Your task to perform on an android device: Show me the alarms in the clock app Image 0: 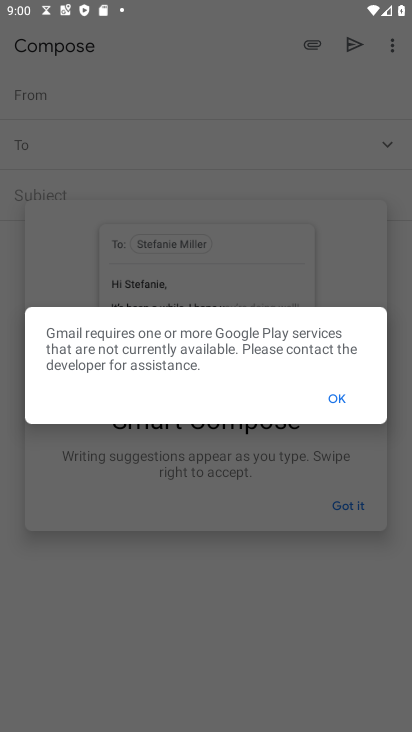
Step 0: press home button
Your task to perform on an android device: Show me the alarms in the clock app Image 1: 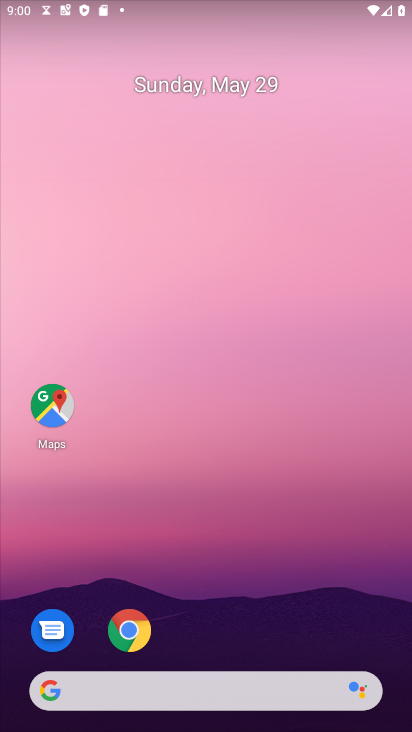
Step 1: drag from (232, 633) to (281, 123)
Your task to perform on an android device: Show me the alarms in the clock app Image 2: 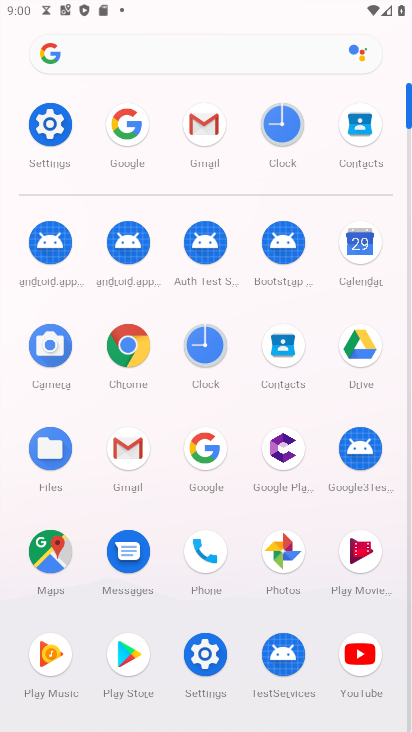
Step 2: click (288, 127)
Your task to perform on an android device: Show me the alarms in the clock app Image 3: 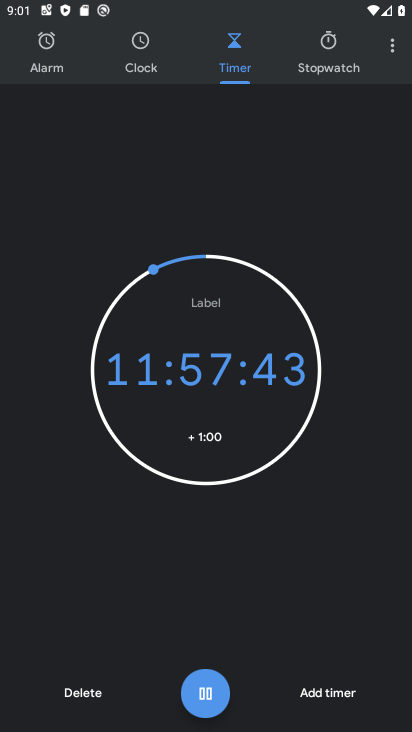
Step 3: click (43, 33)
Your task to perform on an android device: Show me the alarms in the clock app Image 4: 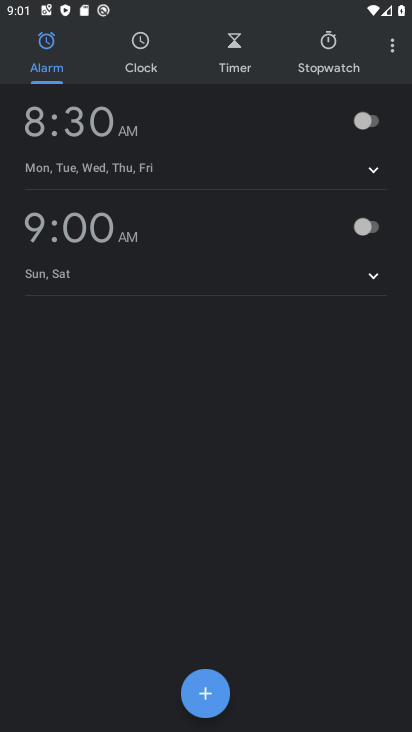
Step 4: task complete